Your task to perform on an android device: check storage Image 0: 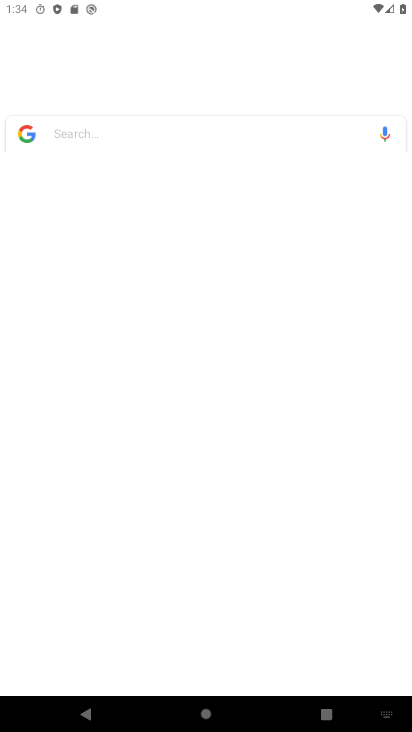
Step 0: drag from (284, 616) to (253, 351)
Your task to perform on an android device: check storage Image 1: 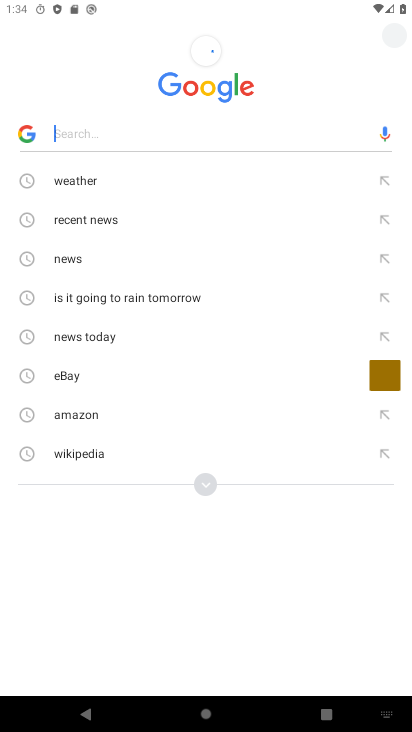
Step 1: press home button
Your task to perform on an android device: check storage Image 2: 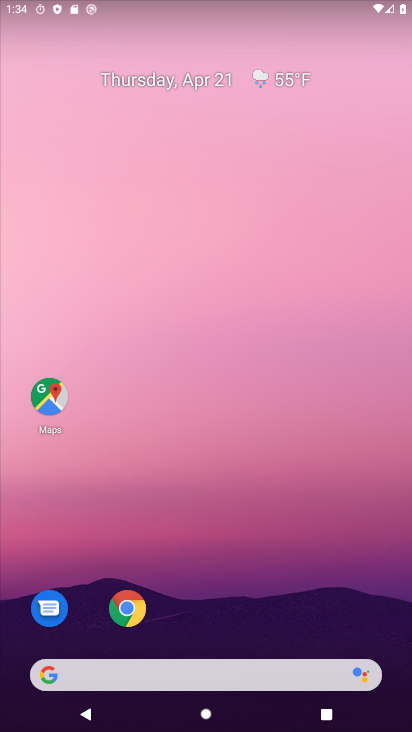
Step 2: drag from (212, 481) to (115, 40)
Your task to perform on an android device: check storage Image 3: 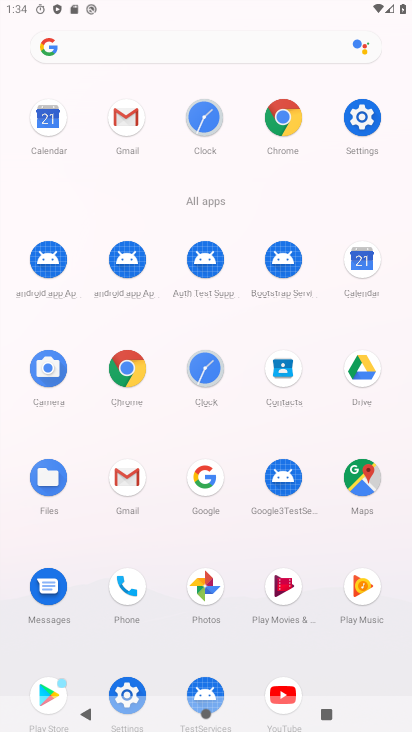
Step 3: click (367, 113)
Your task to perform on an android device: check storage Image 4: 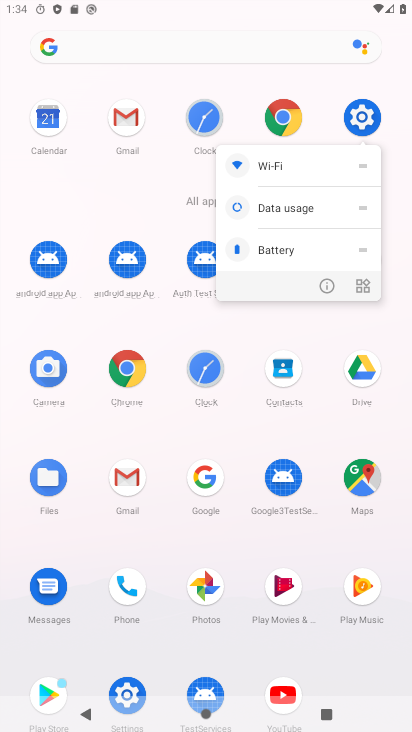
Step 4: click (366, 117)
Your task to perform on an android device: check storage Image 5: 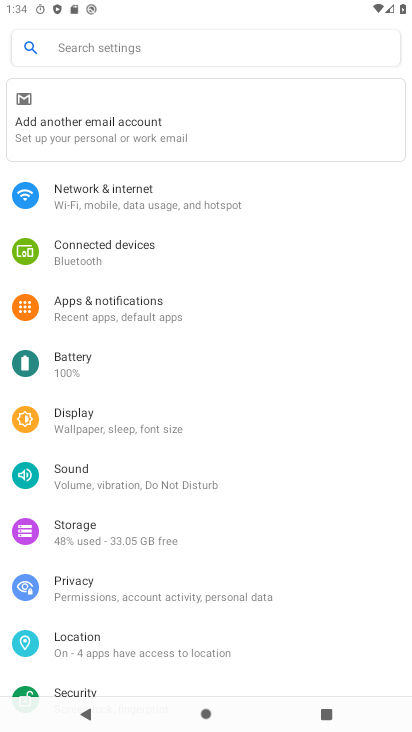
Step 5: click (88, 538)
Your task to perform on an android device: check storage Image 6: 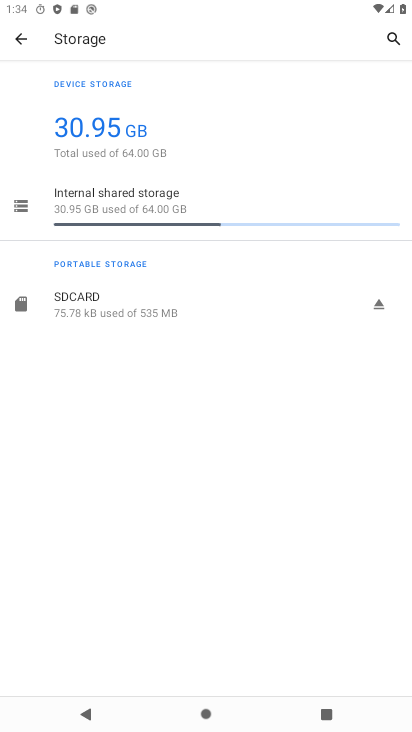
Step 6: task complete